Your task to perform on an android device: Search for Italian restaurants on Maps Image 0: 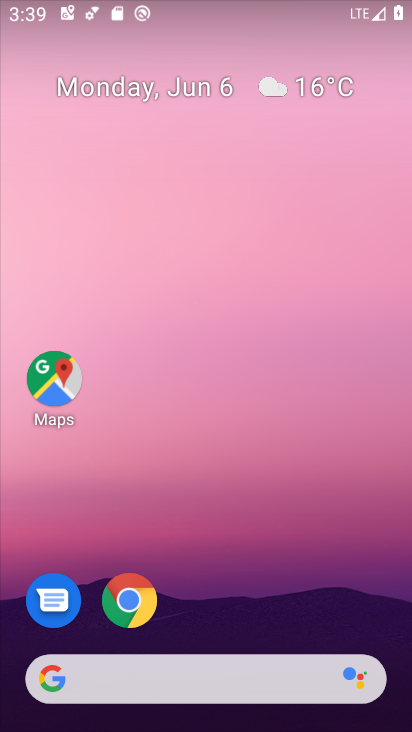
Step 0: click (172, 213)
Your task to perform on an android device: Search for Italian restaurants on Maps Image 1: 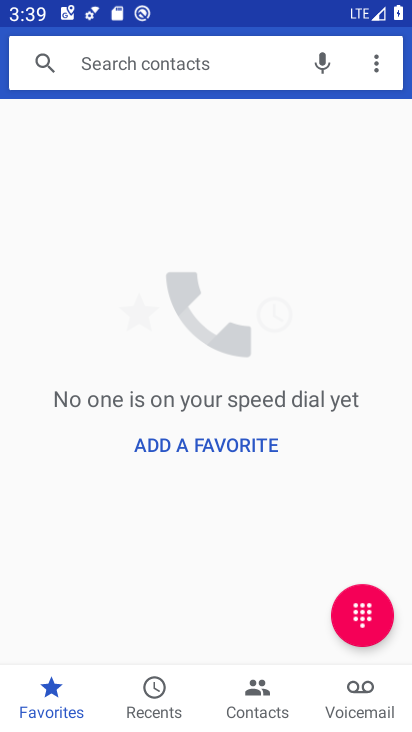
Step 1: press back button
Your task to perform on an android device: Search for Italian restaurants on Maps Image 2: 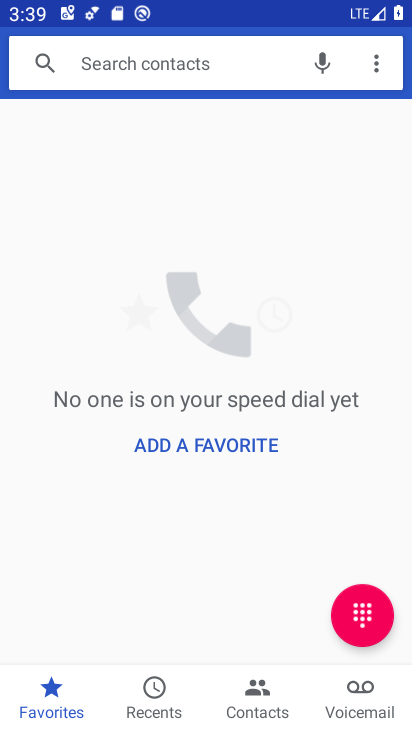
Step 2: press back button
Your task to perform on an android device: Search for Italian restaurants on Maps Image 3: 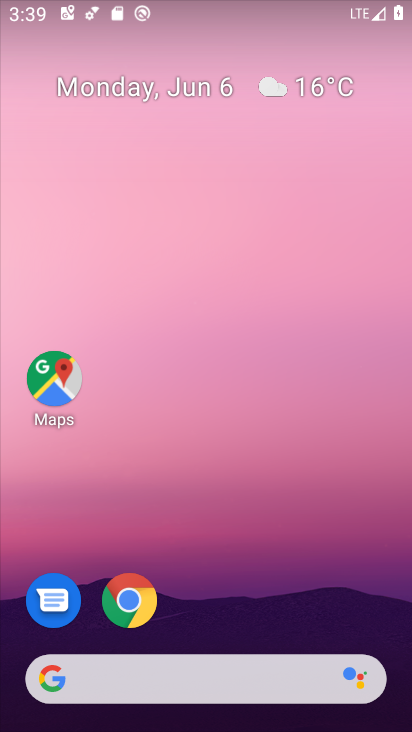
Step 3: press home button
Your task to perform on an android device: Search for Italian restaurants on Maps Image 4: 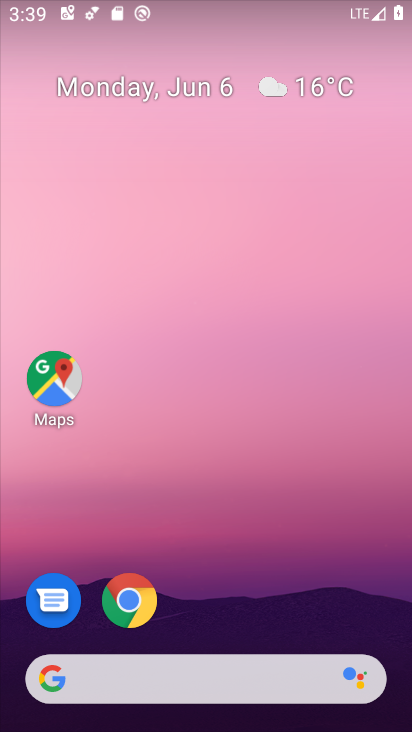
Step 4: drag from (241, 665) to (195, 256)
Your task to perform on an android device: Search for Italian restaurants on Maps Image 5: 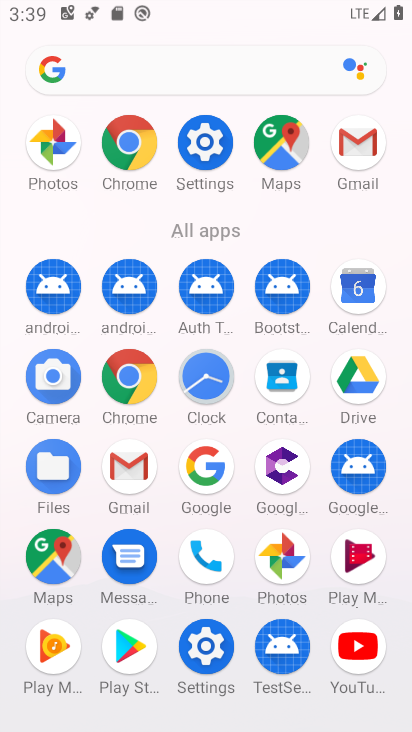
Step 5: click (53, 558)
Your task to perform on an android device: Search for Italian restaurants on Maps Image 6: 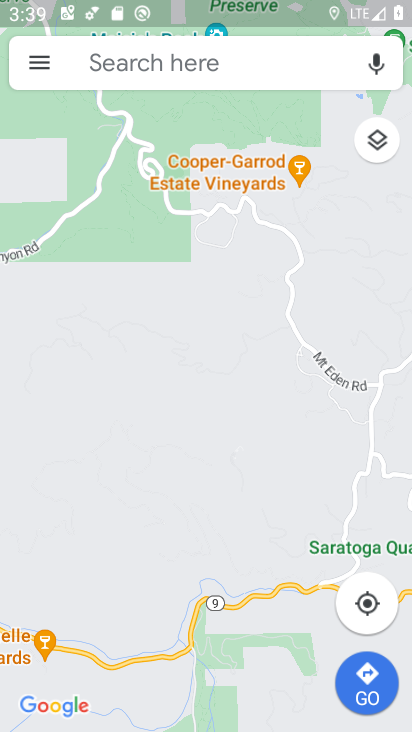
Step 6: click (103, 52)
Your task to perform on an android device: Search for Italian restaurants on Maps Image 7: 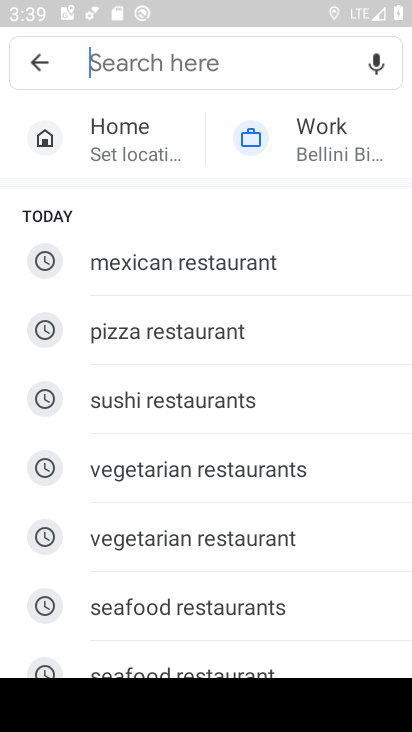
Step 7: drag from (202, 599) to (215, 229)
Your task to perform on an android device: Search for Italian restaurants on Maps Image 8: 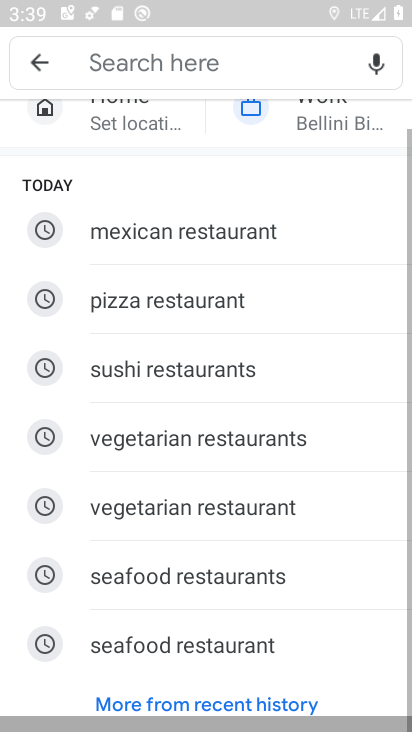
Step 8: drag from (211, 502) to (209, 222)
Your task to perform on an android device: Search for Italian restaurants on Maps Image 9: 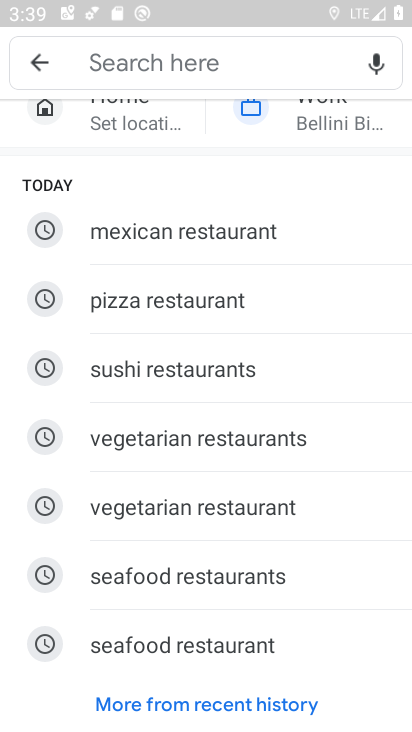
Step 9: drag from (137, 260) to (206, 613)
Your task to perform on an android device: Search for Italian restaurants on Maps Image 10: 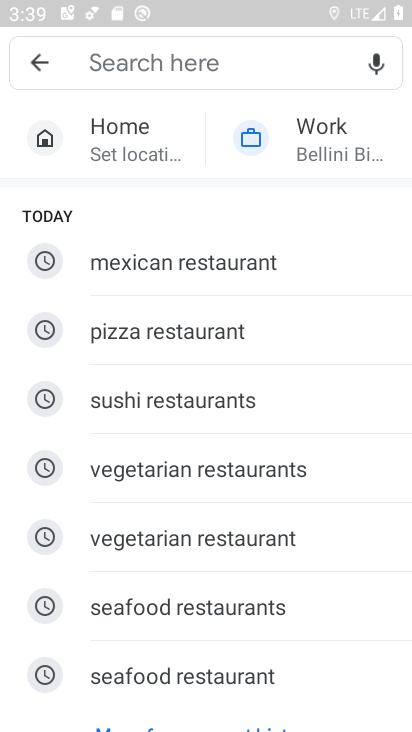
Step 10: type "italian restaurants"
Your task to perform on an android device: Search for Italian restaurants on Maps Image 11: 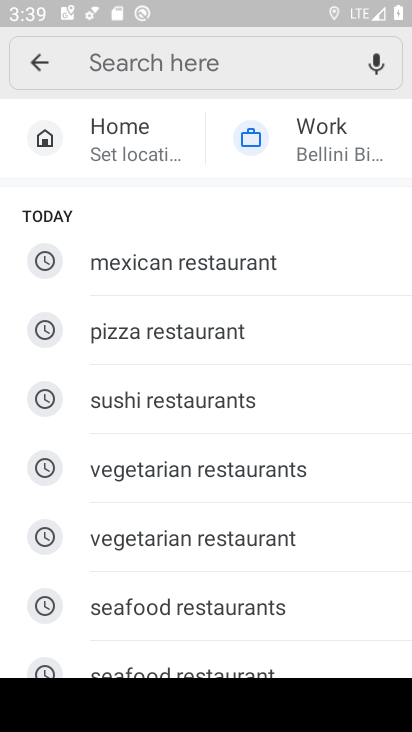
Step 11: click (99, 73)
Your task to perform on an android device: Search for Italian restaurants on Maps Image 12: 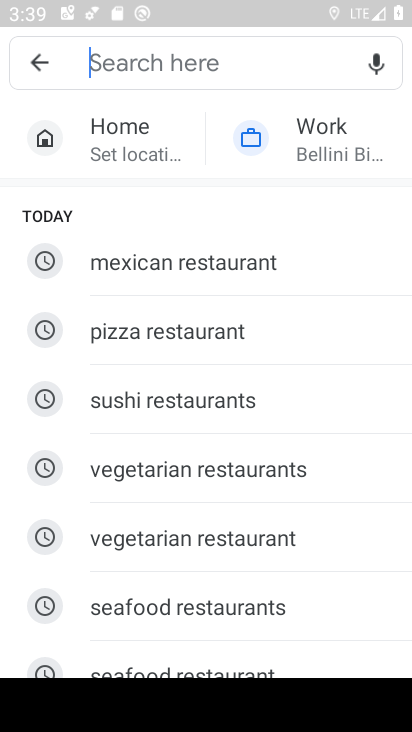
Step 12: click (99, 73)
Your task to perform on an android device: Search for Italian restaurants on Maps Image 13: 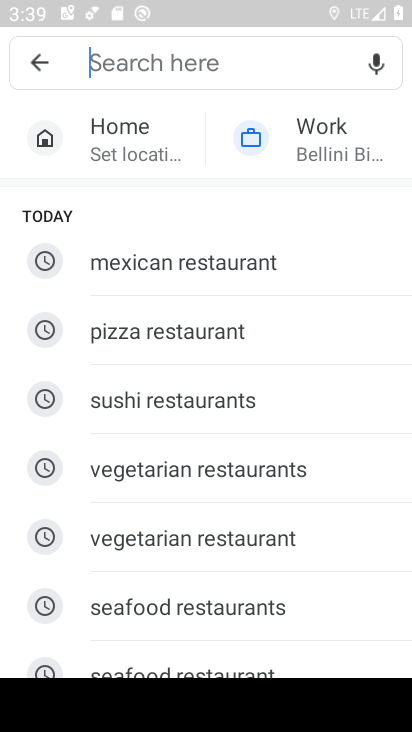
Step 13: click (99, 73)
Your task to perform on an android device: Search for Italian restaurants on Maps Image 14: 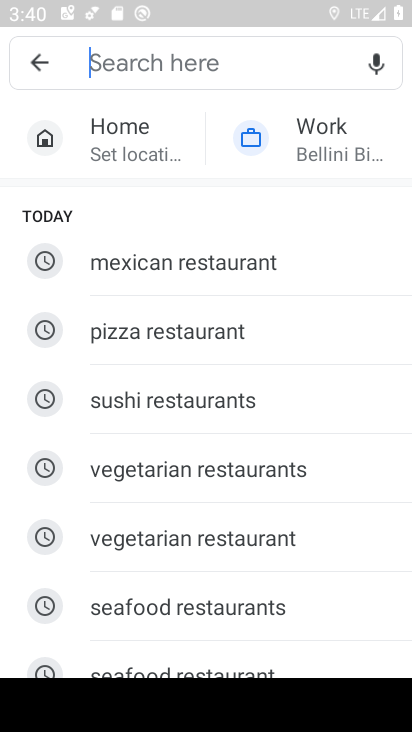
Step 14: type "italian restaurants"
Your task to perform on an android device: Search for Italian restaurants on Maps Image 15: 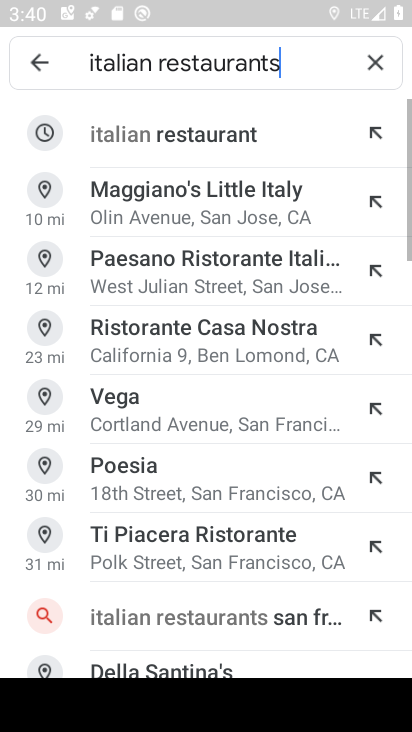
Step 15: click (227, 133)
Your task to perform on an android device: Search for Italian restaurants on Maps Image 16: 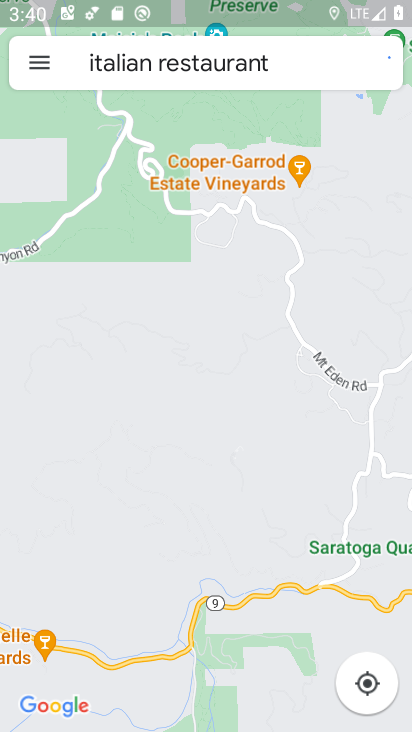
Step 16: task complete